Your task to perform on an android device: change the clock style Image 0: 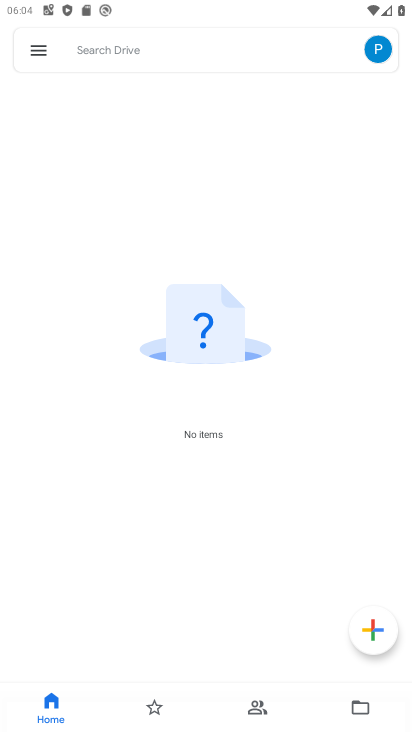
Step 0: press home button
Your task to perform on an android device: change the clock style Image 1: 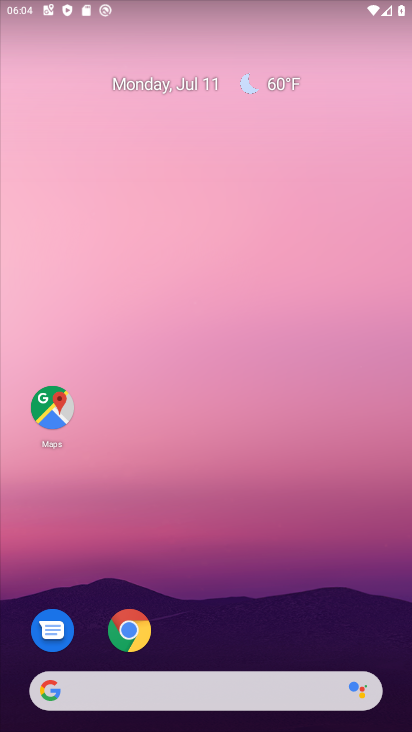
Step 1: drag from (182, 487) to (189, 113)
Your task to perform on an android device: change the clock style Image 2: 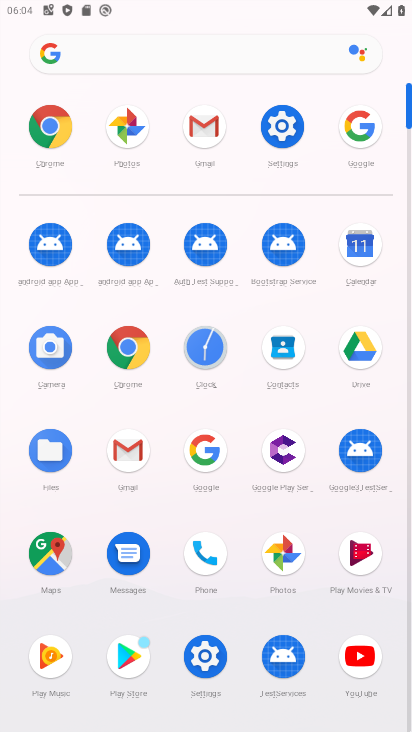
Step 2: click (196, 344)
Your task to perform on an android device: change the clock style Image 3: 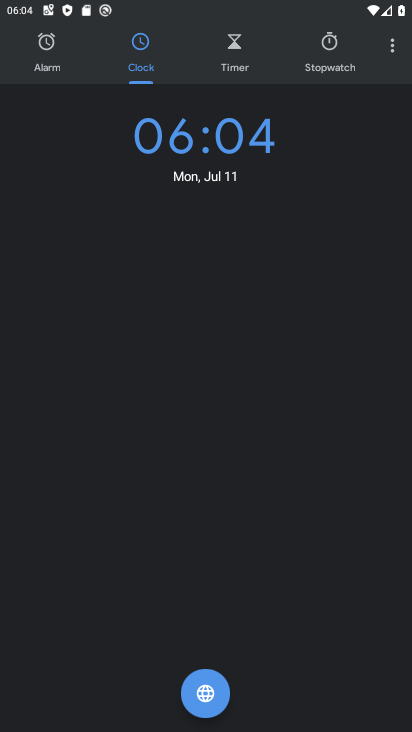
Step 3: click (392, 55)
Your task to perform on an android device: change the clock style Image 4: 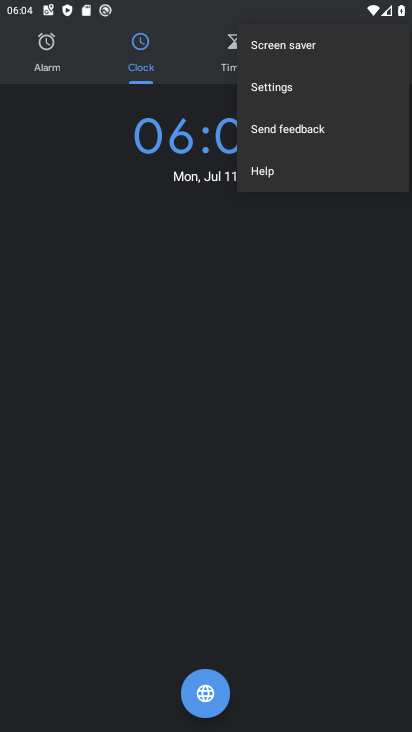
Step 4: click (271, 91)
Your task to perform on an android device: change the clock style Image 5: 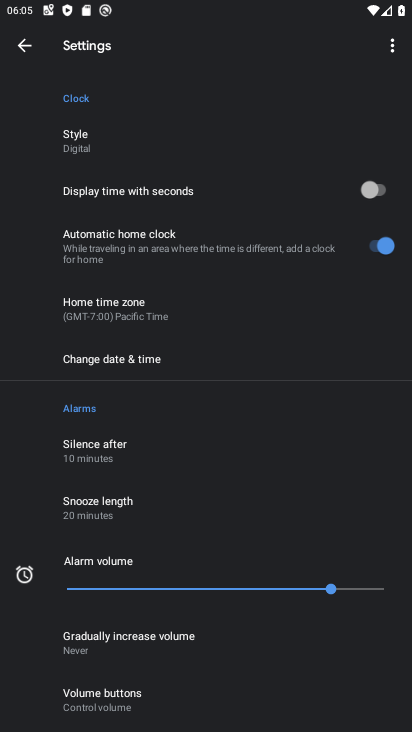
Step 5: click (75, 147)
Your task to perform on an android device: change the clock style Image 6: 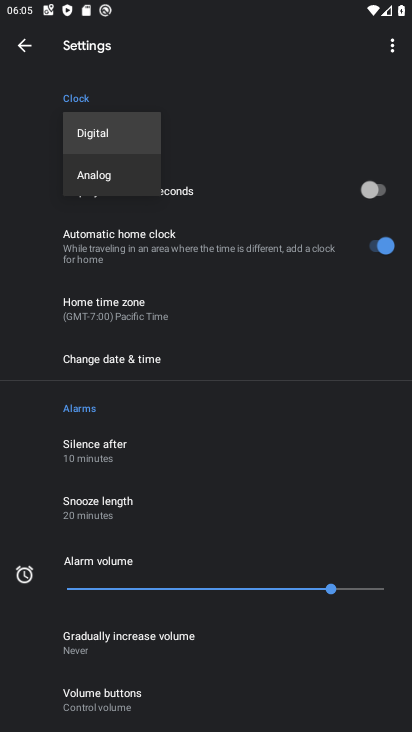
Step 6: click (90, 172)
Your task to perform on an android device: change the clock style Image 7: 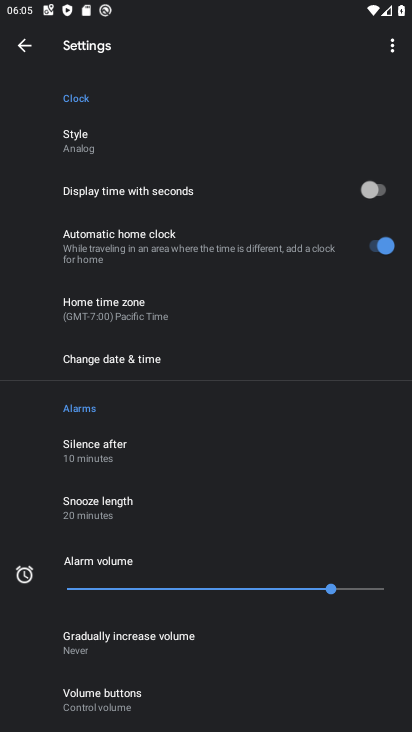
Step 7: task complete